Your task to perform on an android device: turn on translation in the chrome app Image 0: 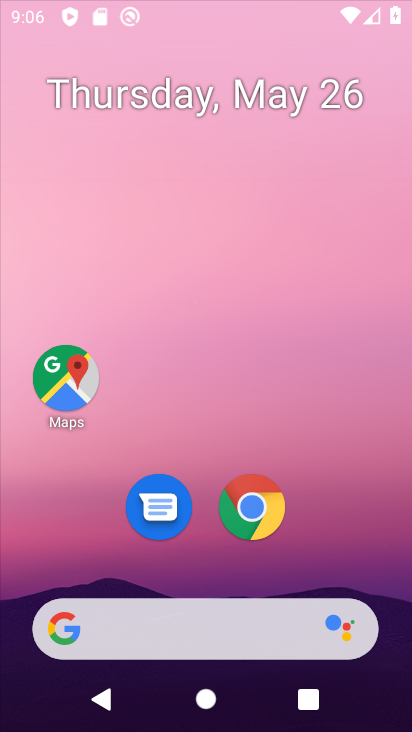
Step 0: drag from (372, 386) to (368, 149)
Your task to perform on an android device: turn on translation in the chrome app Image 1: 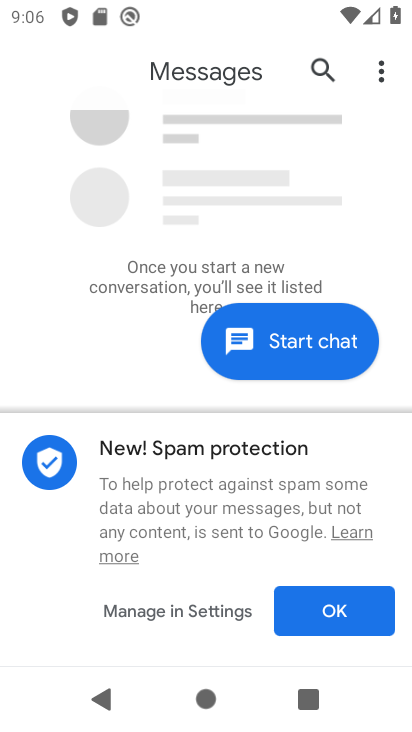
Step 1: press home button
Your task to perform on an android device: turn on translation in the chrome app Image 2: 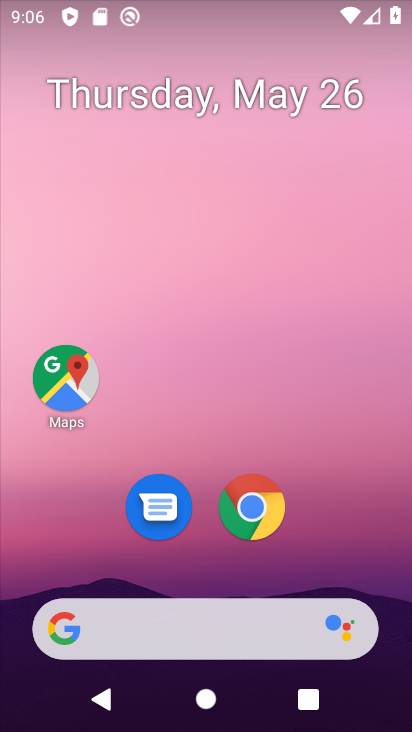
Step 2: drag from (380, 523) to (391, 205)
Your task to perform on an android device: turn on translation in the chrome app Image 3: 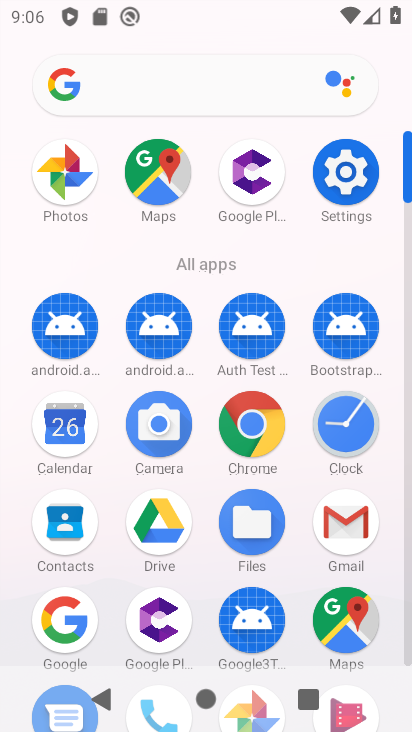
Step 3: click (265, 441)
Your task to perform on an android device: turn on translation in the chrome app Image 4: 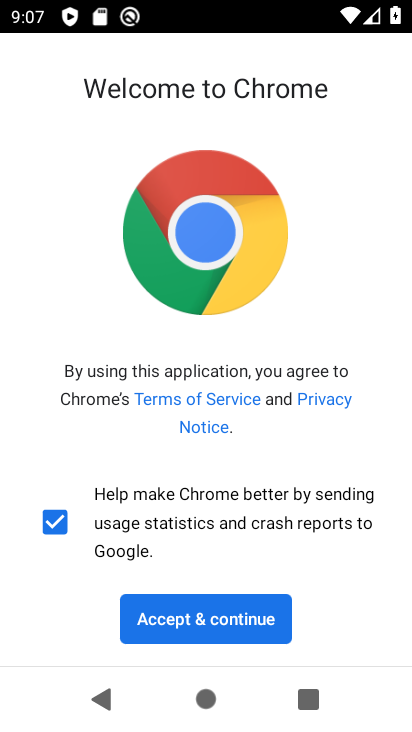
Step 4: click (232, 612)
Your task to perform on an android device: turn on translation in the chrome app Image 5: 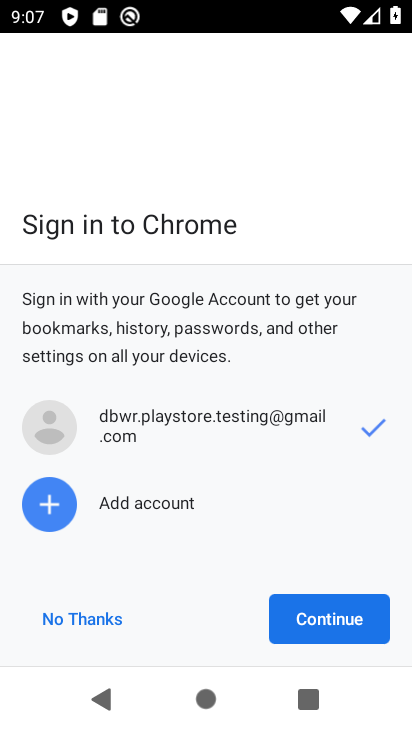
Step 5: click (295, 618)
Your task to perform on an android device: turn on translation in the chrome app Image 6: 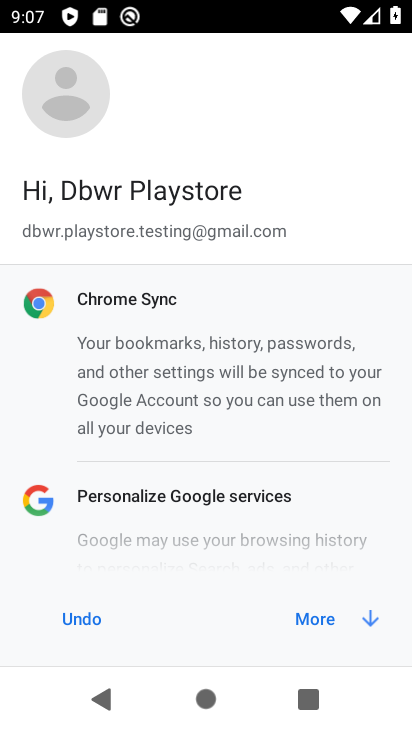
Step 6: click (295, 618)
Your task to perform on an android device: turn on translation in the chrome app Image 7: 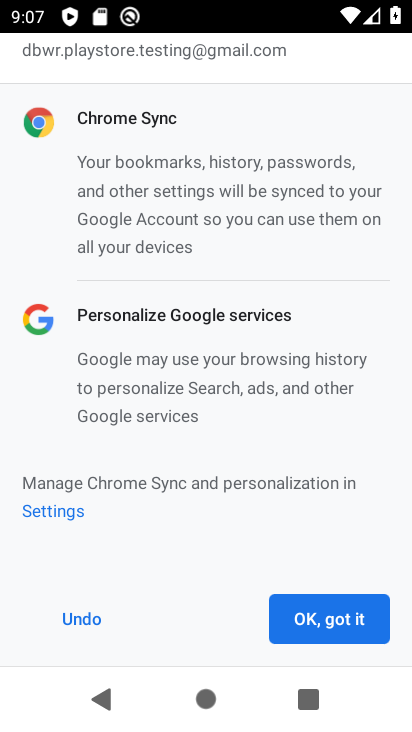
Step 7: click (295, 618)
Your task to perform on an android device: turn on translation in the chrome app Image 8: 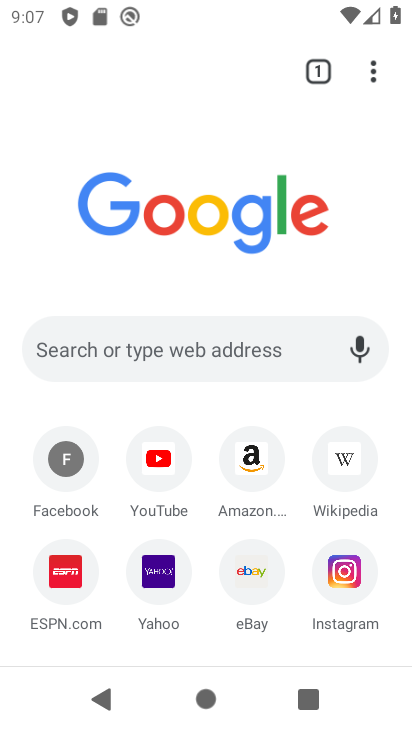
Step 8: click (375, 68)
Your task to perform on an android device: turn on translation in the chrome app Image 9: 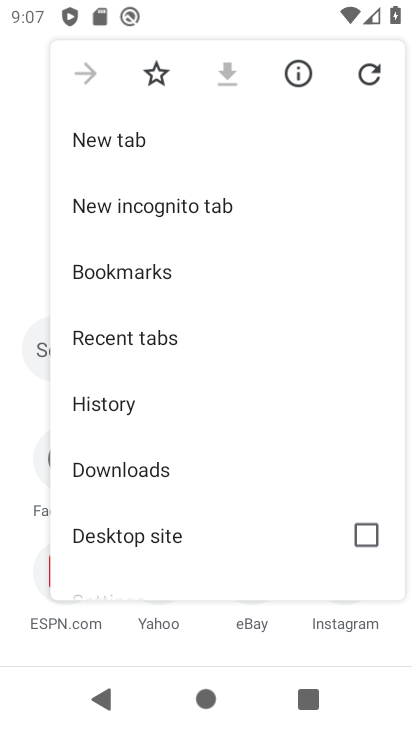
Step 9: drag from (283, 492) to (302, 376)
Your task to perform on an android device: turn on translation in the chrome app Image 10: 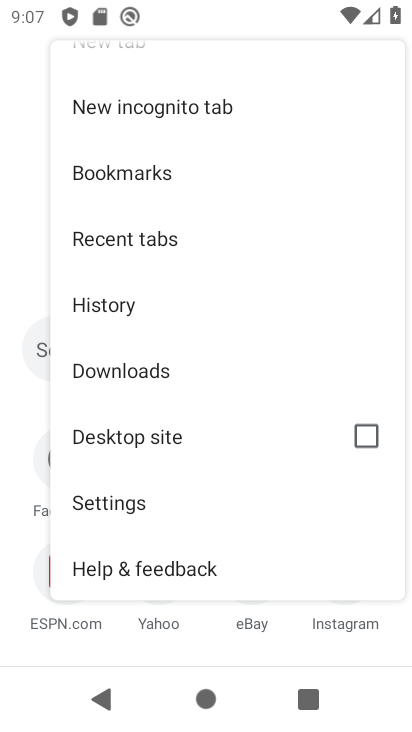
Step 10: drag from (278, 491) to (287, 318)
Your task to perform on an android device: turn on translation in the chrome app Image 11: 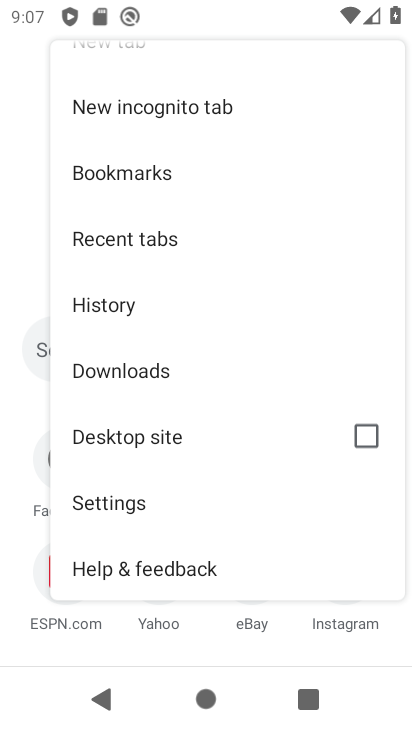
Step 11: click (141, 517)
Your task to perform on an android device: turn on translation in the chrome app Image 12: 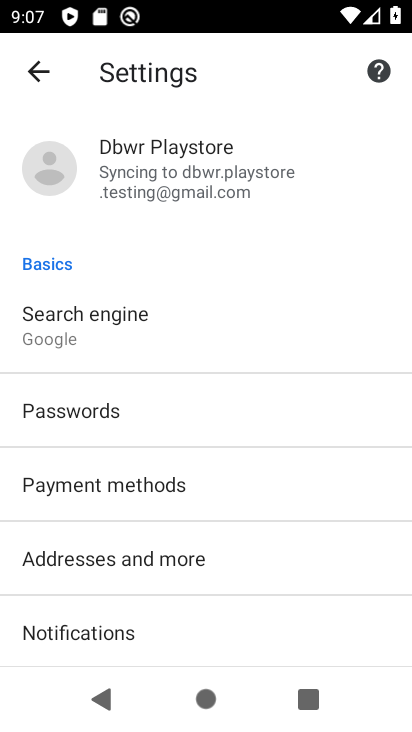
Step 12: drag from (341, 538) to (340, 427)
Your task to perform on an android device: turn on translation in the chrome app Image 13: 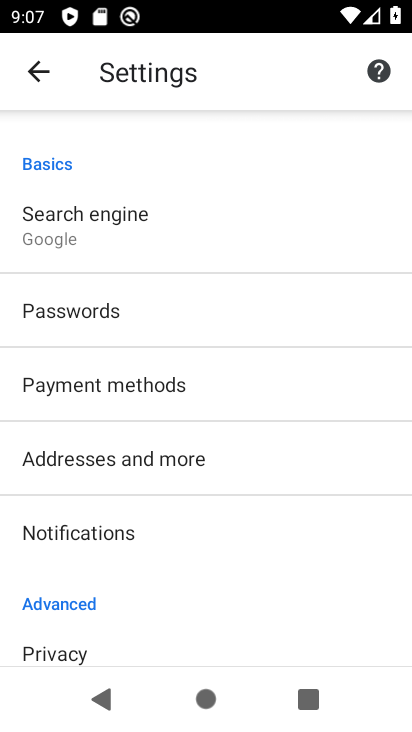
Step 13: drag from (328, 548) to (336, 459)
Your task to perform on an android device: turn on translation in the chrome app Image 14: 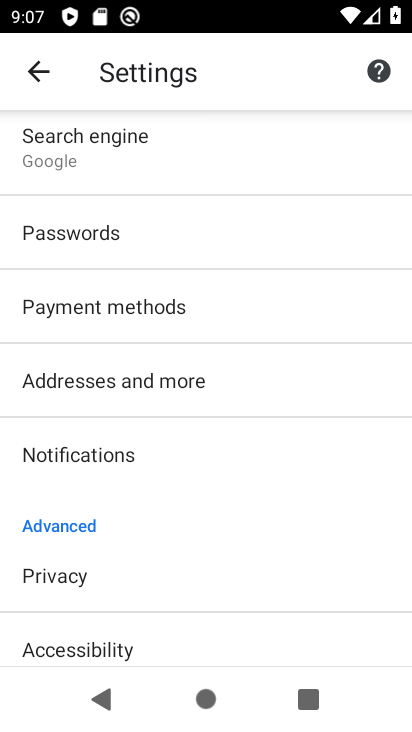
Step 14: drag from (337, 592) to (344, 462)
Your task to perform on an android device: turn on translation in the chrome app Image 15: 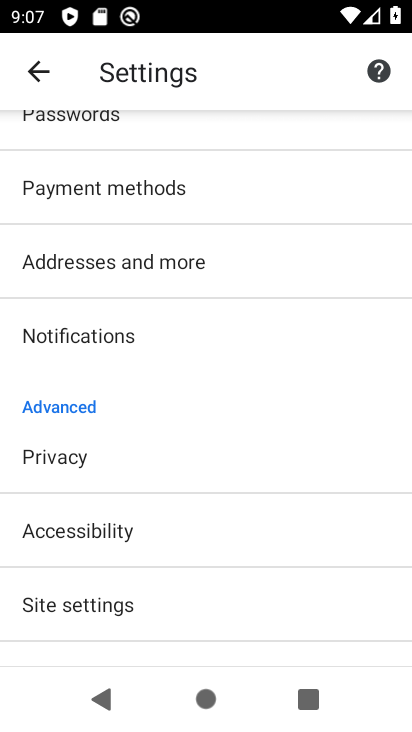
Step 15: drag from (377, 594) to (382, 492)
Your task to perform on an android device: turn on translation in the chrome app Image 16: 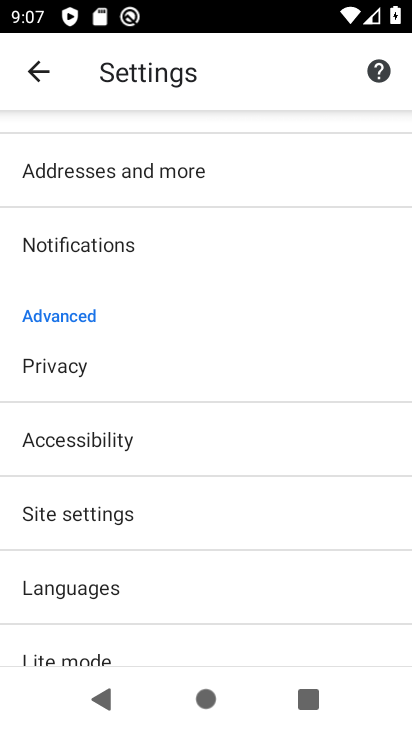
Step 16: drag from (290, 573) to (295, 486)
Your task to perform on an android device: turn on translation in the chrome app Image 17: 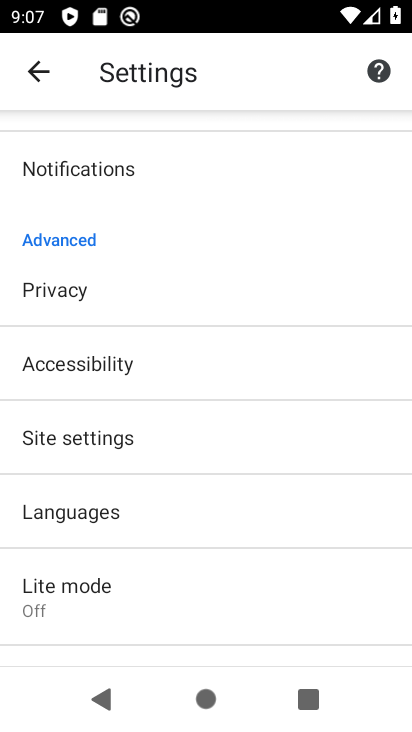
Step 17: drag from (299, 586) to (305, 496)
Your task to perform on an android device: turn on translation in the chrome app Image 18: 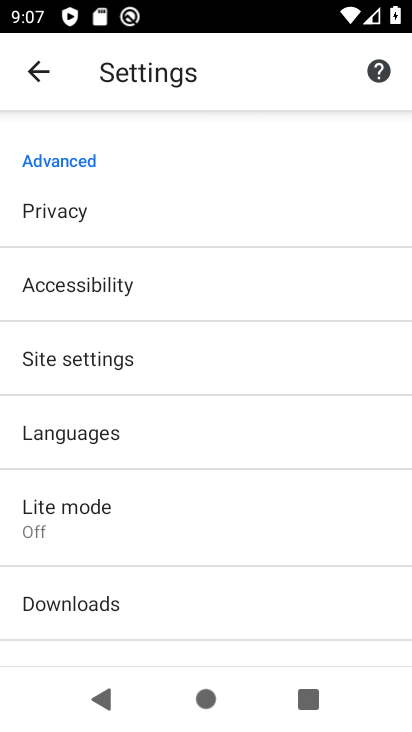
Step 18: drag from (309, 613) to (323, 505)
Your task to perform on an android device: turn on translation in the chrome app Image 19: 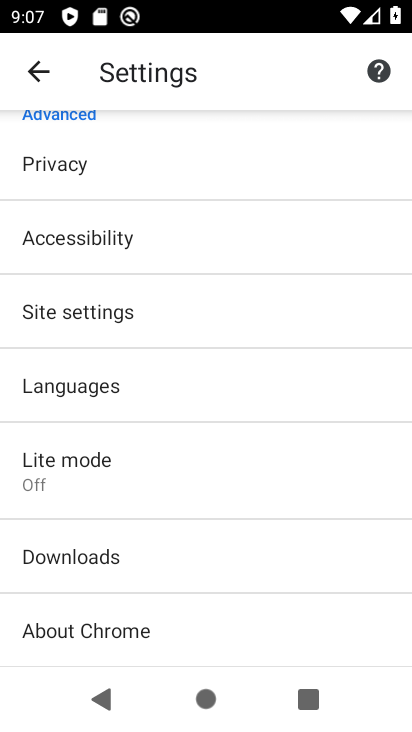
Step 19: drag from (341, 594) to (351, 435)
Your task to perform on an android device: turn on translation in the chrome app Image 20: 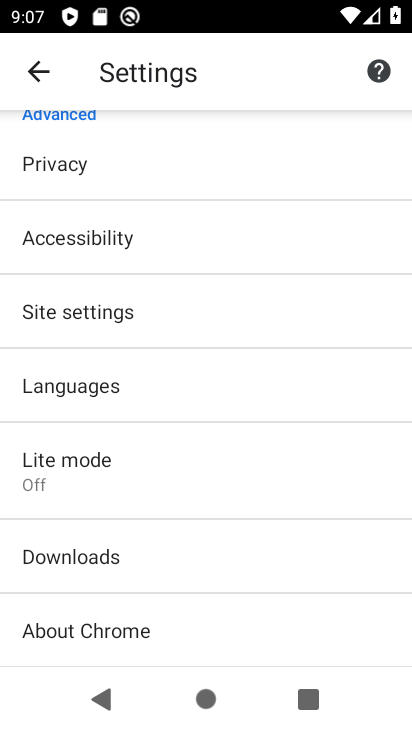
Step 20: drag from (353, 352) to (355, 440)
Your task to perform on an android device: turn on translation in the chrome app Image 21: 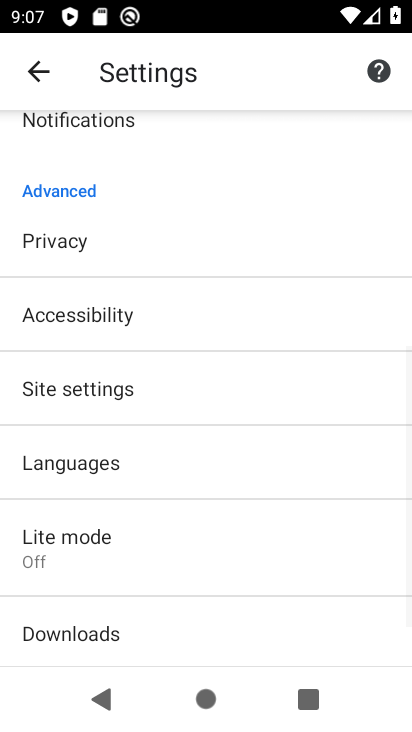
Step 21: drag from (353, 331) to (356, 425)
Your task to perform on an android device: turn on translation in the chrome app Image 22: 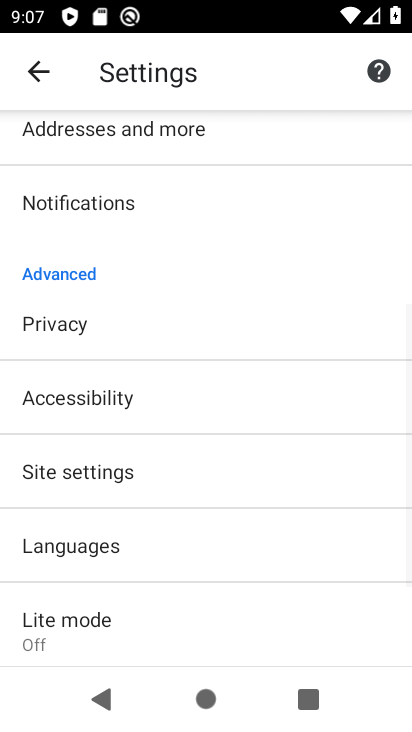
Step 22: drag from (350, 333) to (354, 423)
Your task to perform on an android device: turn on translation in the chrome app Image 23: 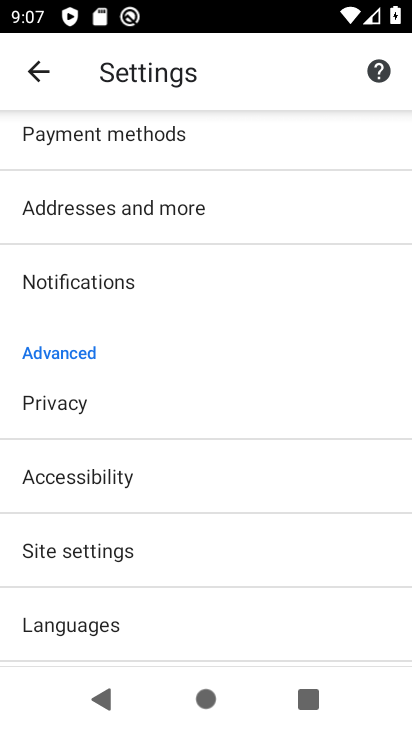
Step 23: drag from (351, 338) to (353, 440)
Your task to perform on an android device: turn on translation in the chrome app Image 24: 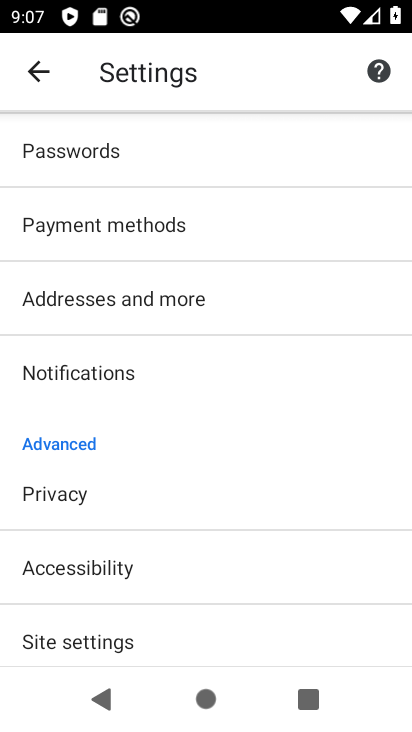
Step 24: drag from (318, 593) to (329, 489)
Your task to perform on an android device: turn on translation in the chrome app Image 25: 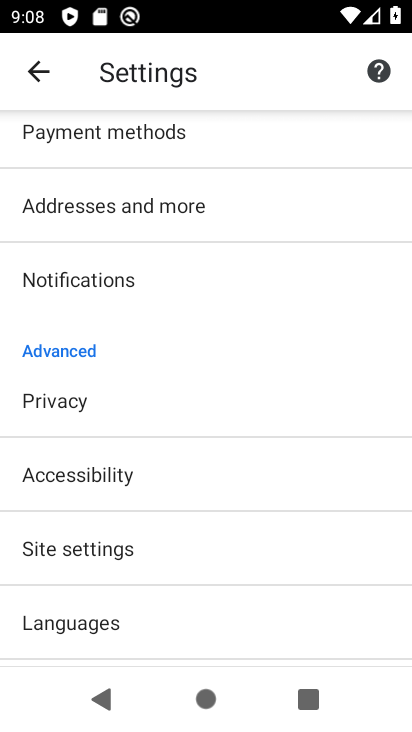
Step 25: drag from (334, 600) to (334, 479)
Your task to perform on an android device: turn on translation in the chrome app Image 26: 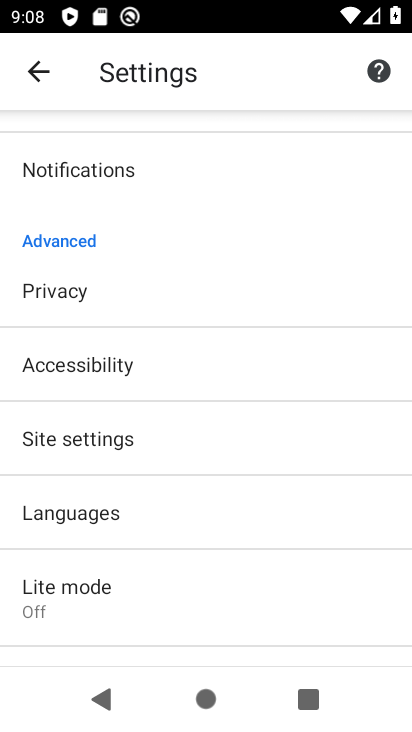
Step 26: drag from (318, 593) to (319, 489)
Your task to perform on an android device: turn on translation in the chrome app Image 27: 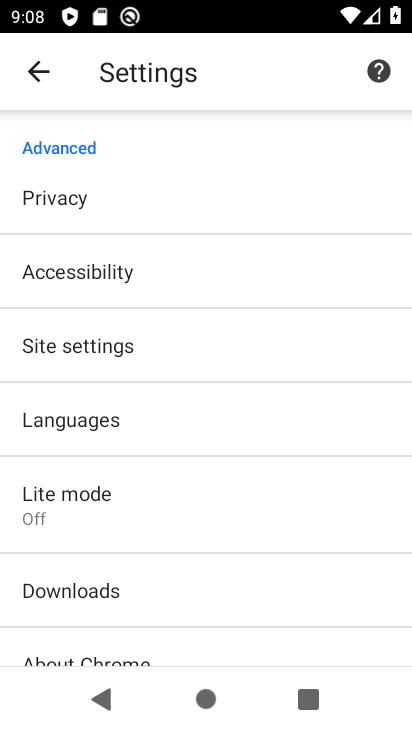
Step 27: click (226, 415)
Your task to perform on an android device: turn on translation in the chrome app Image 28: 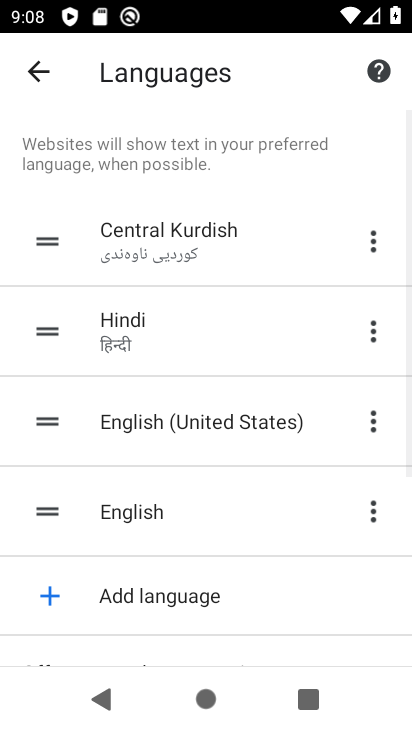
Step 28: drag from (294, 587) to (291, 452)
Your task to perform on an android device: turn on translation in the chrome app Image 29: 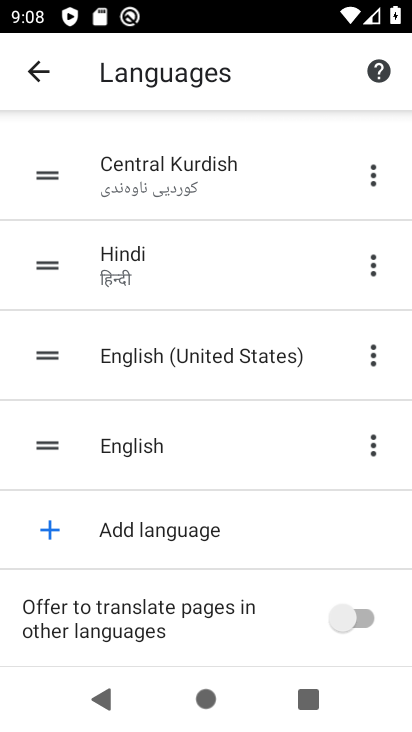
Step 29: click (355, 634)
Your task to perform on an android device: turn on translation in the chrome app Image 30: 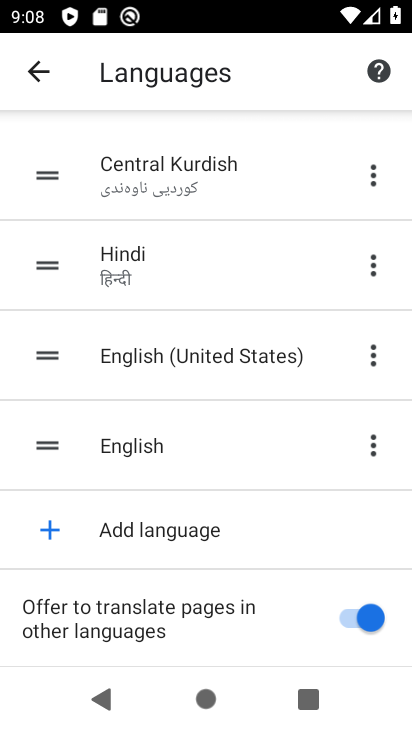
Step 30: task complete